Your task to perform on an android device: Show me recent news Image 0: 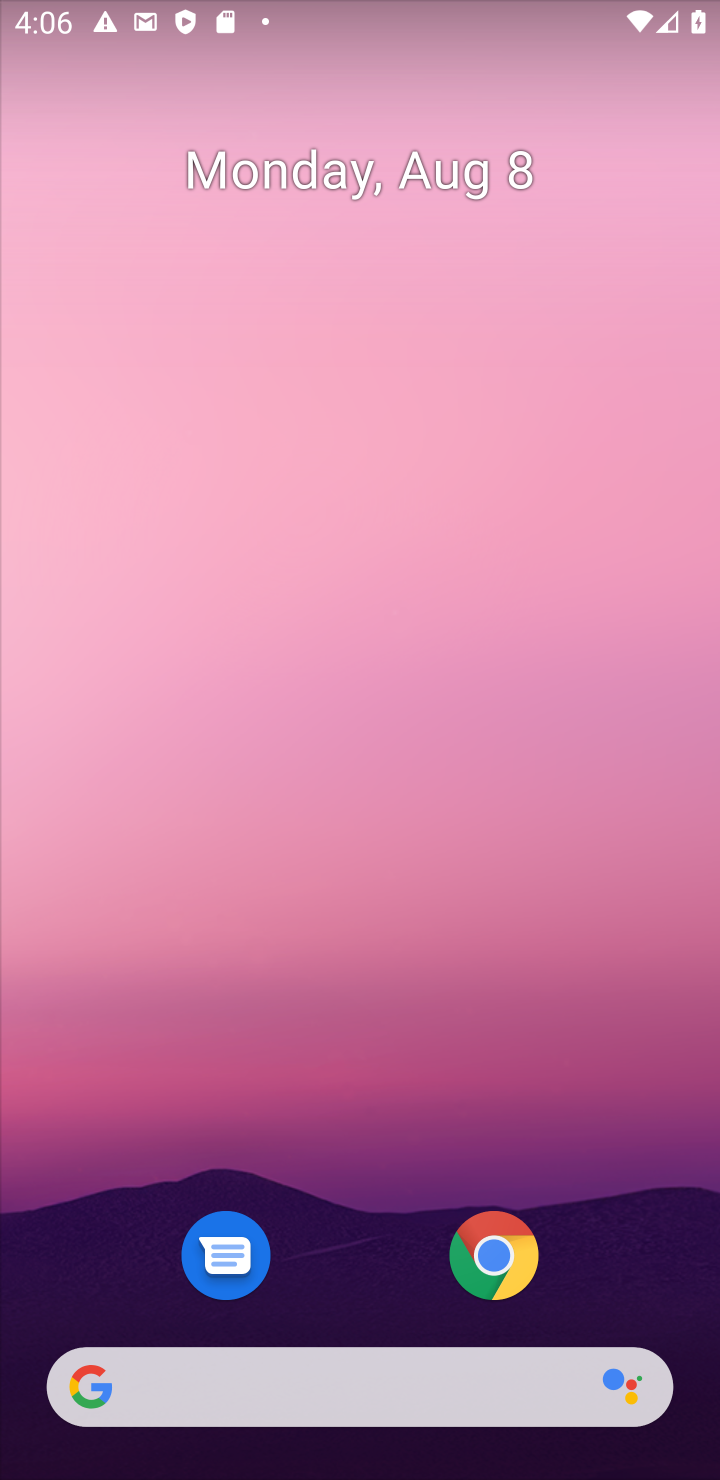
Step 0: drag from (315, 1386) to (487, 212)
Your task to perform on an android device: Show me recent news Image 1: 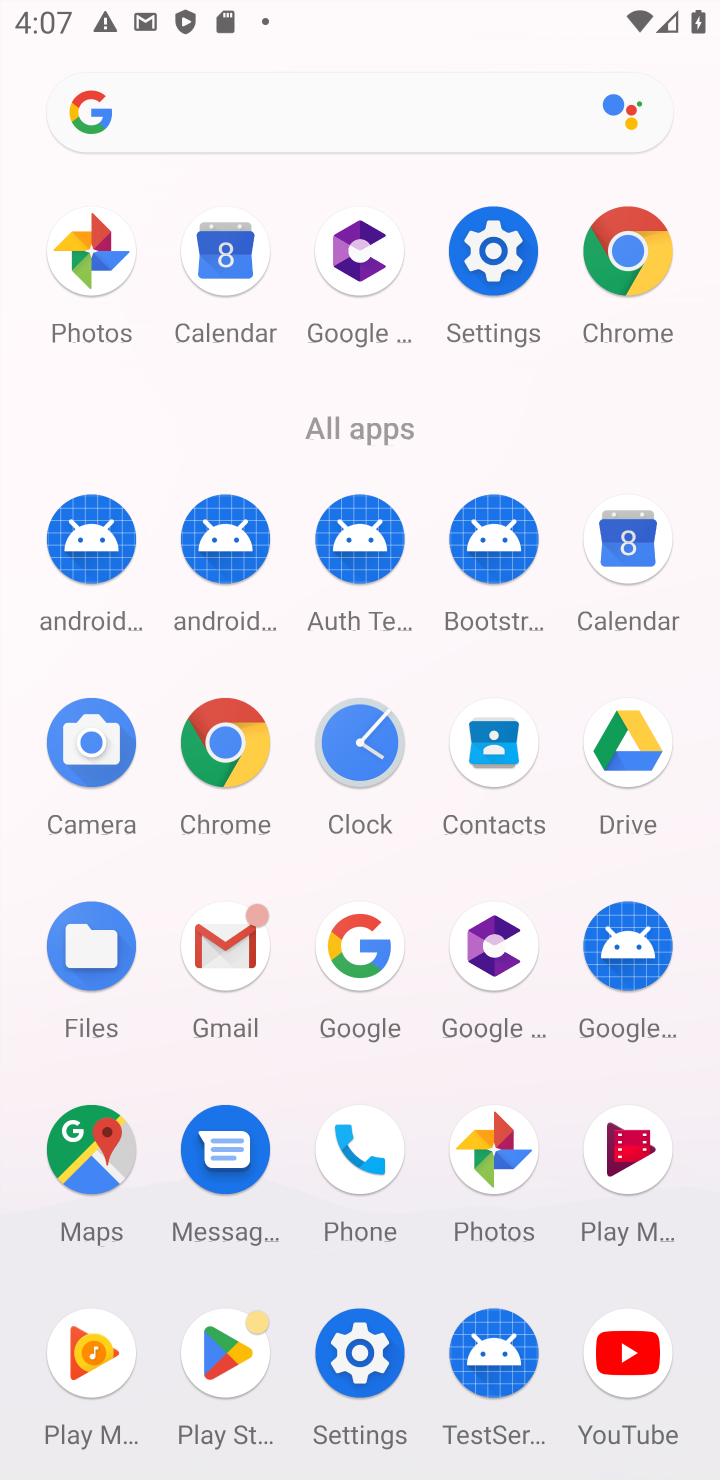
Step 1: click (356, 943)
Your task to perform on an android device: Show me recent news Image 2: 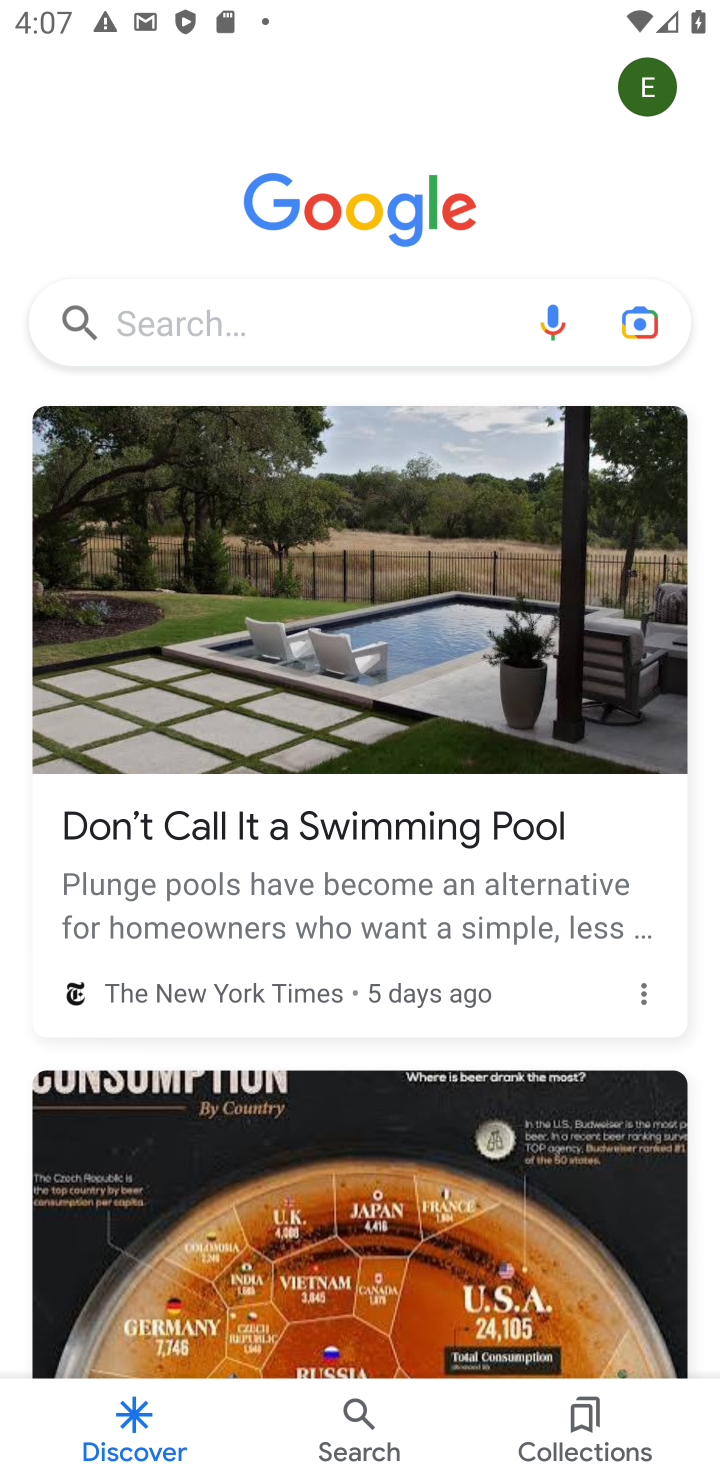
Step 2: click (293, 331)
Your task to perform on an android device: Show me recent news Image 3: 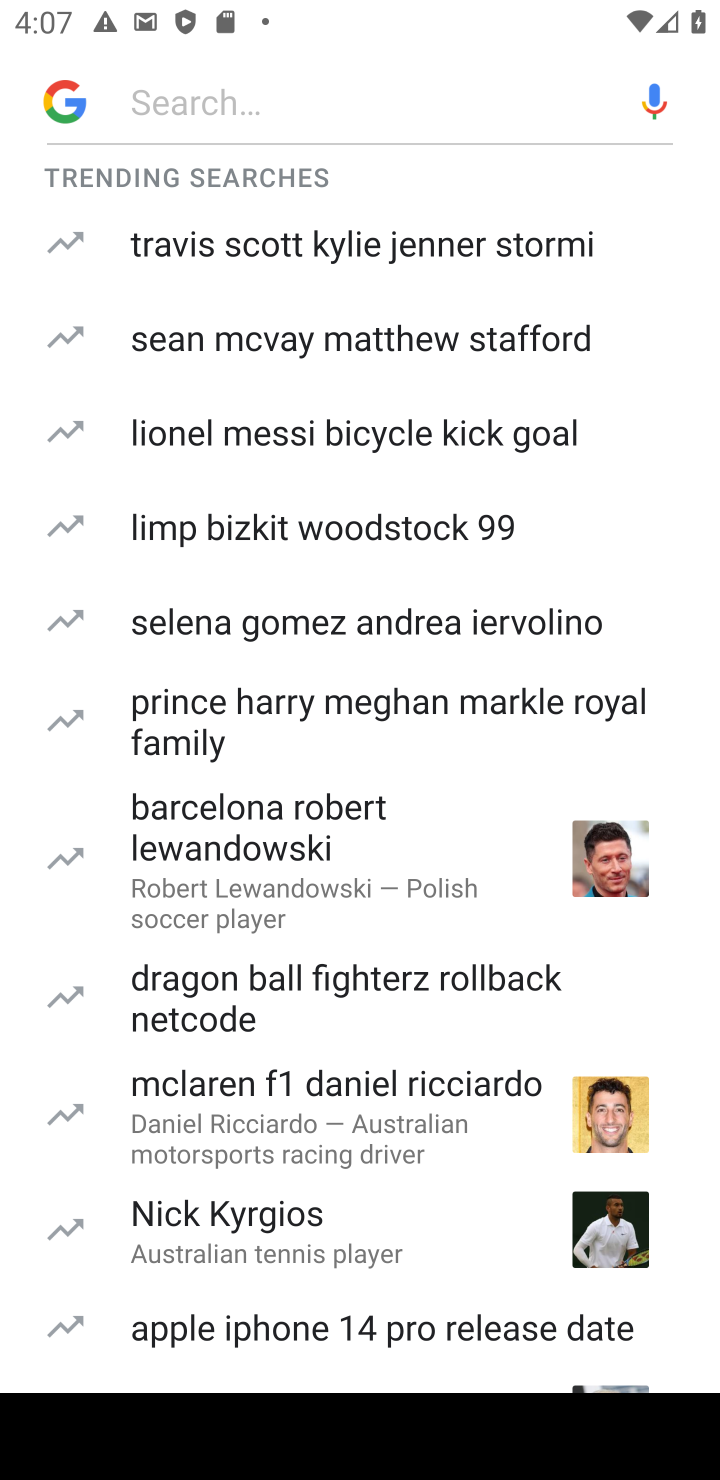
Step 3: type "recent news"
Your task to perform on an android device: Show me recent news Image 4: 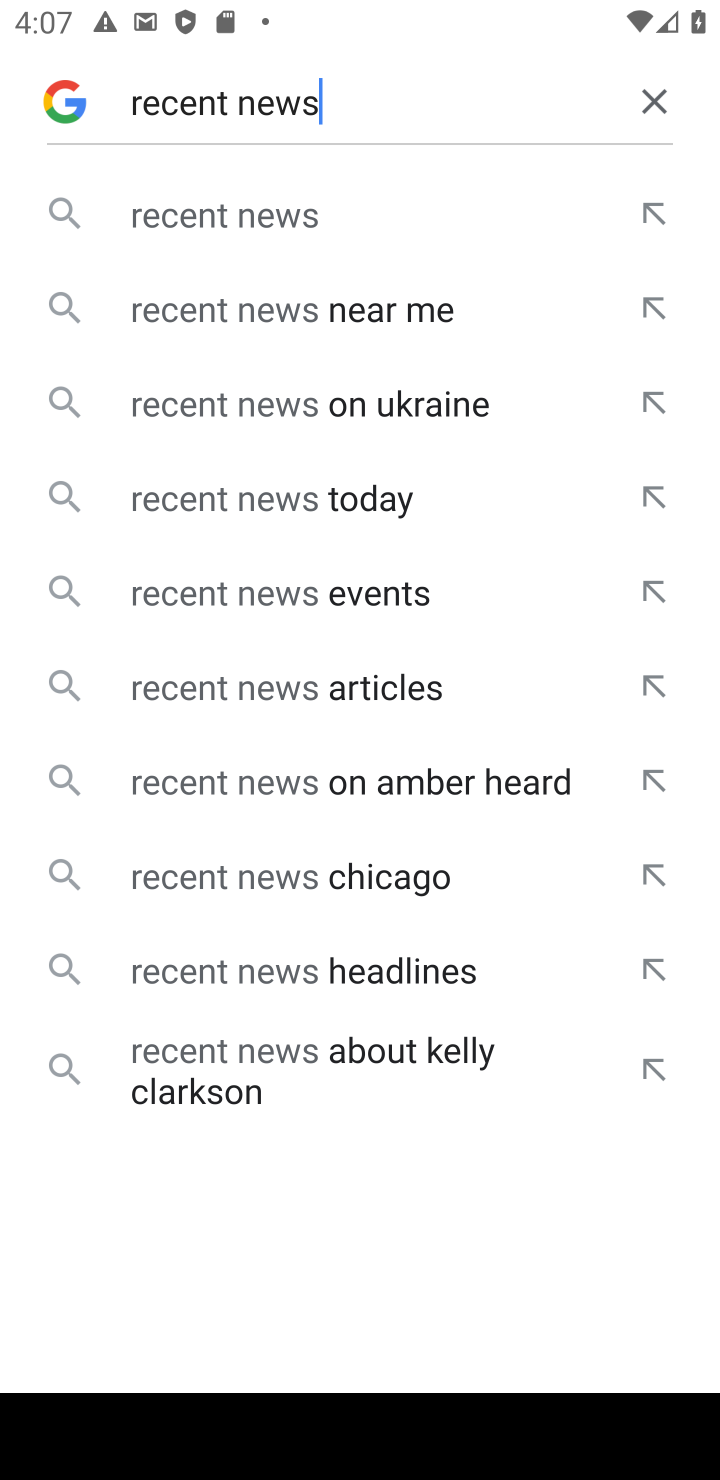
Step 4: click (287, 221)
Your task to perform on an android device: Show me recent news Image 5: 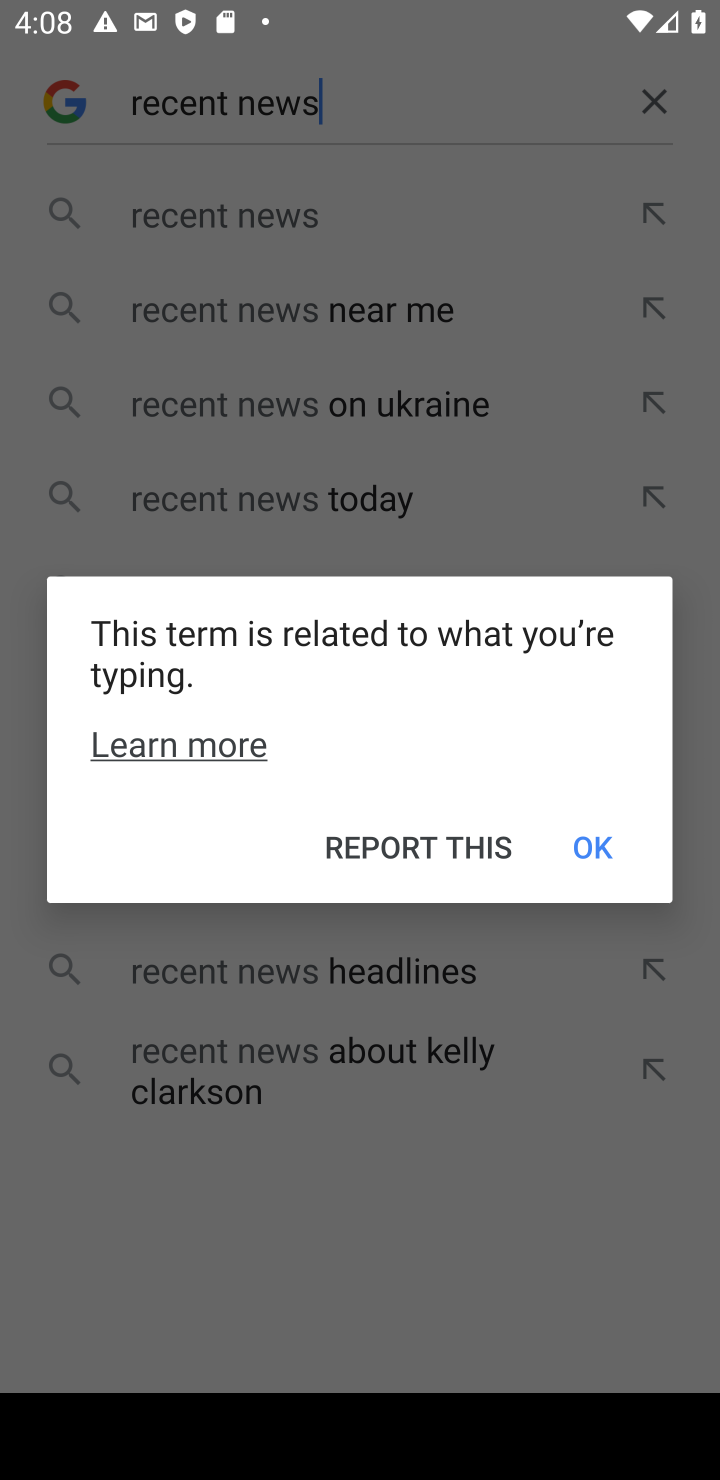
Step 5: click (586, 847)
Your task to perform on an android device: Show me recent news Image 6: 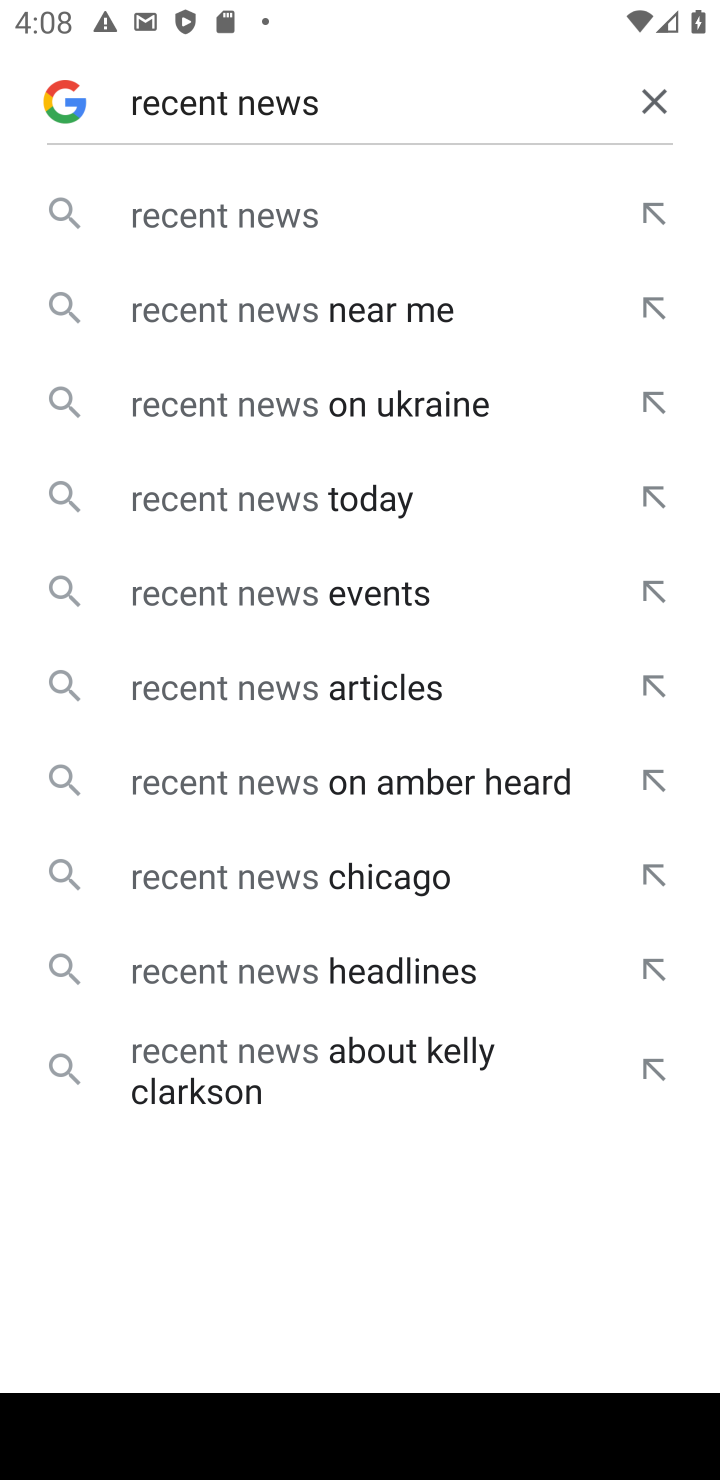
Step 6: click (249, 213)
Your task to perform on an android device: Show me recent news Image 7: 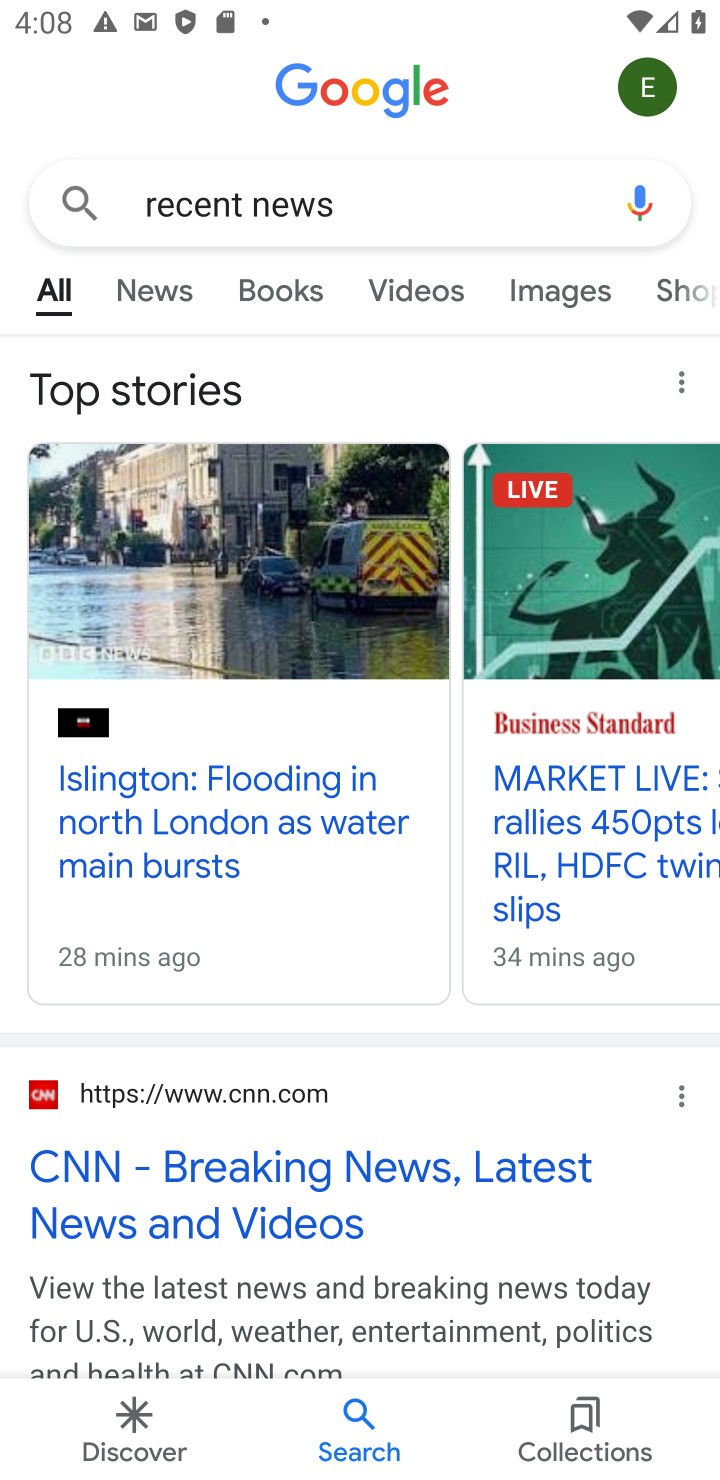
Step 7: click (270, 801)
Your task to perform on an android device: Show me recent news Image 8: 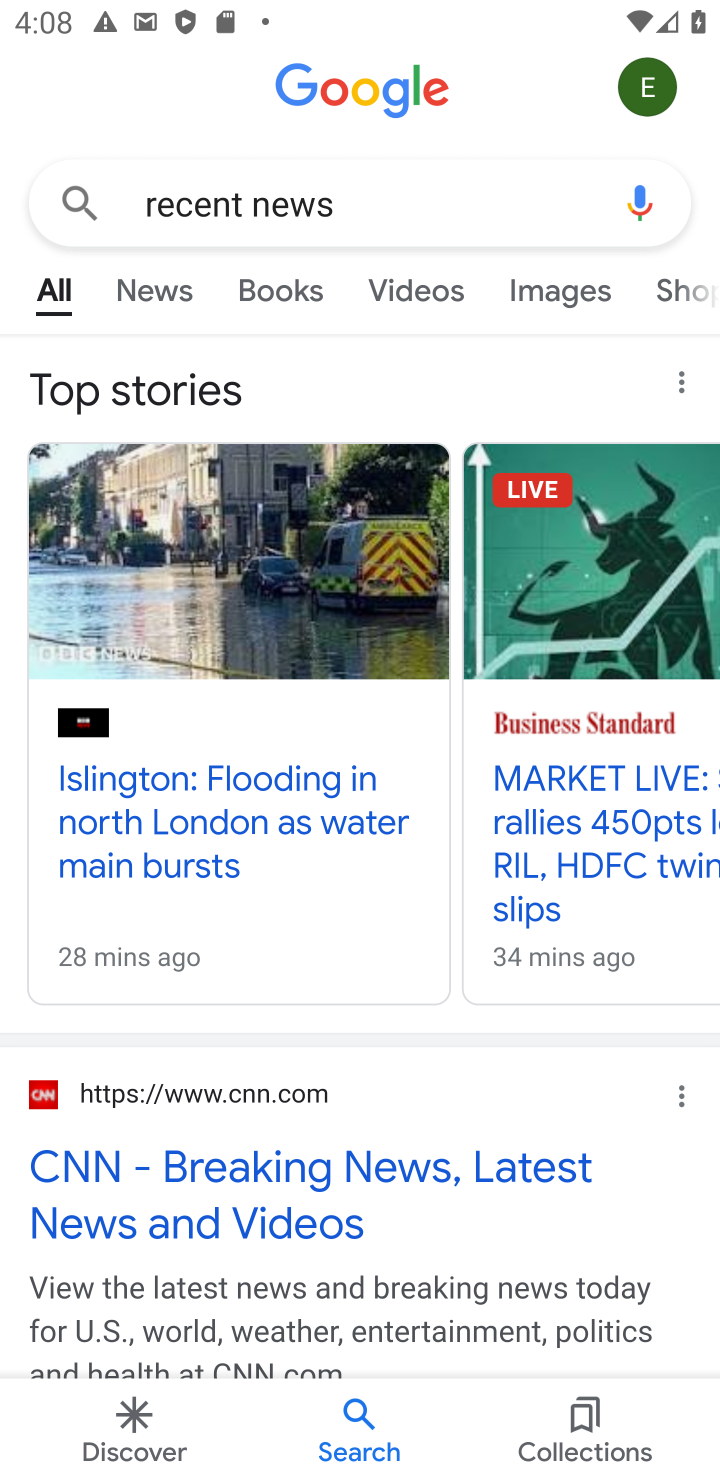
Step 8: click (270, 801)
Your task to perform on an android device: Show me recent news Image 9: 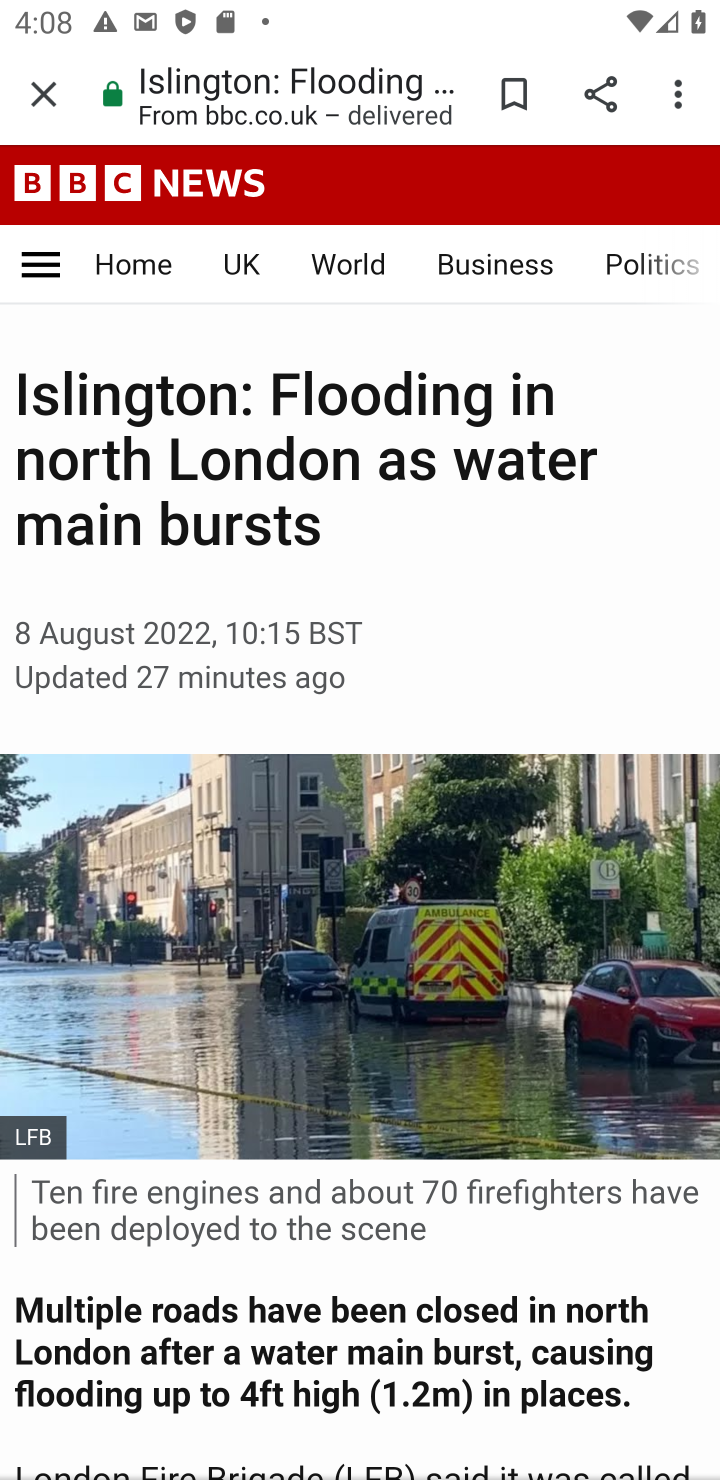
Step 9: task complete